Your task to perform on an android device: refresh tabs in the chrome app Image 0: 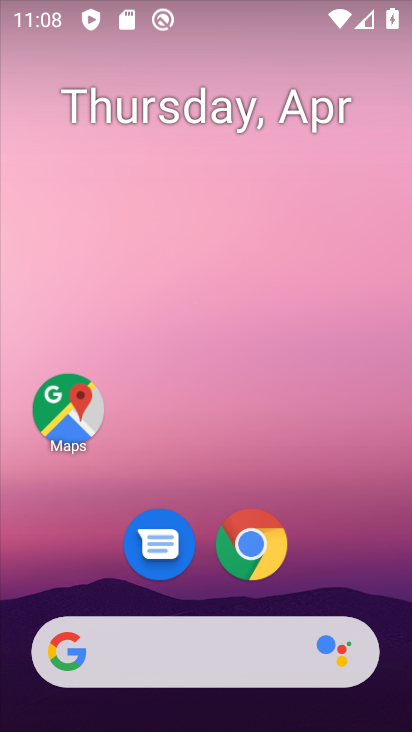
Step 0: click (256, 547)
Your task to perform on an android device: refresh tabs in the chrome app Image 1: 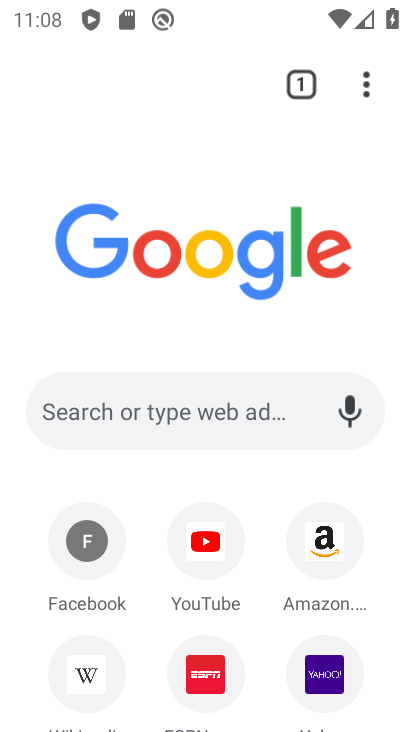
Step 1: click (405, 547)
Your task to perform on an android device: refresh tabs in the chrome app Image 2: 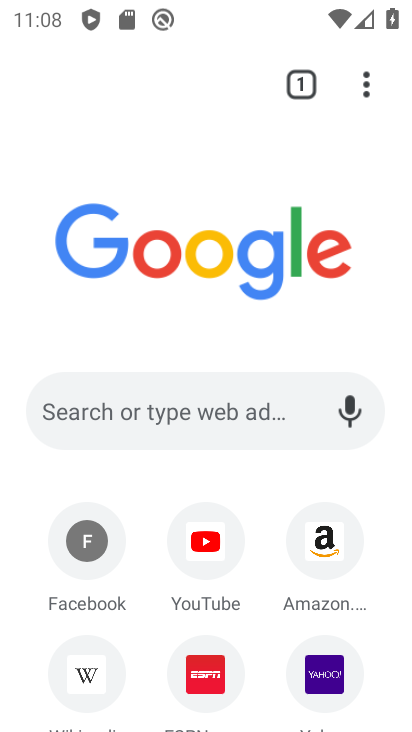
Step 2: drag from (405, 547) to (364, 77)
Your task to perform on an android device: refresh tabs in the chrome app Image 3: 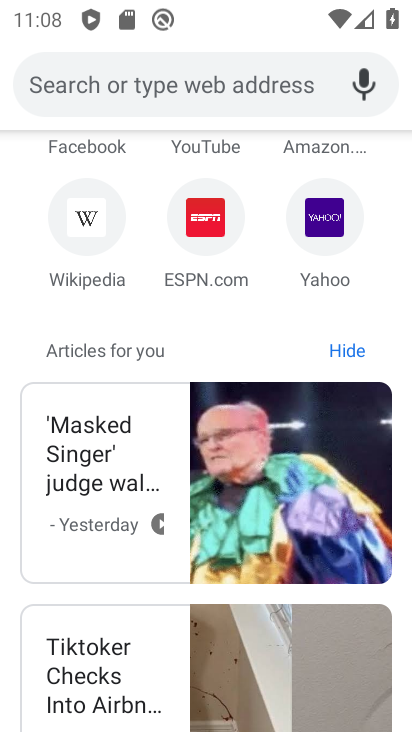
Step 3: drag from (333, 184) to (404, 546)
Your task to perform on an android device: refresh tabs in the chrome app Image 4: 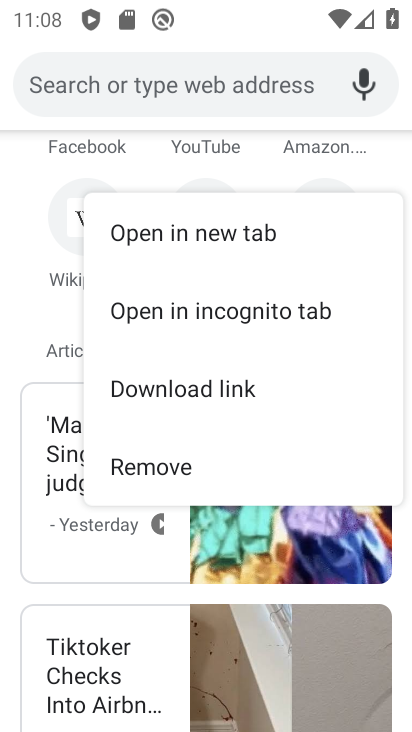
Step 4: drag from (61, 214) to (2, 471)
Your task to perform on an android device: refresh tabs in the chrome app Image 5: 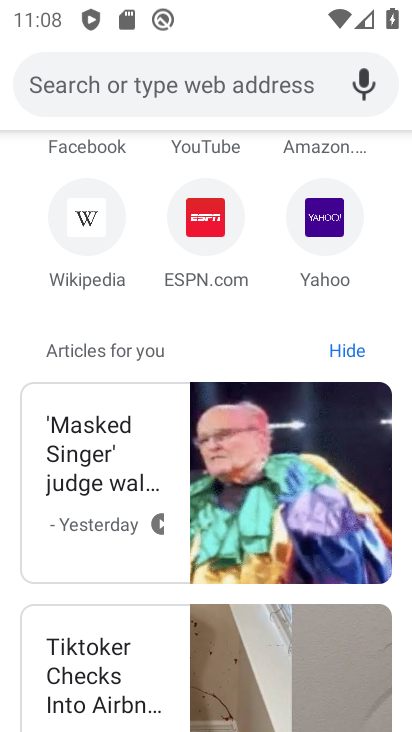
Step 5: drag from (19, 190) to (0, 482)
Your task to perform on an android device: refresh tabs in the chrome app Image 6: 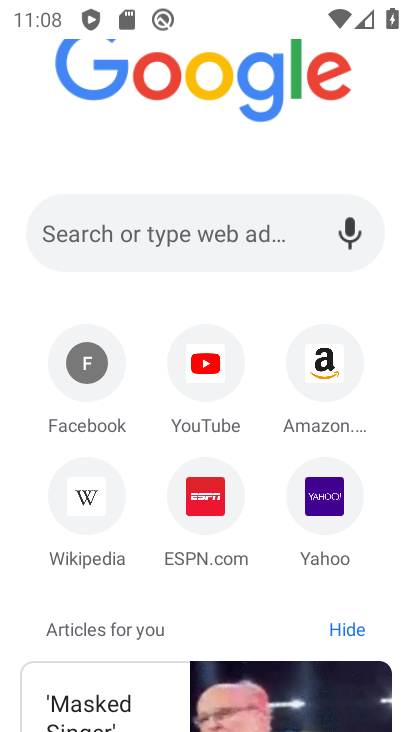
Step 6: drag from (54, 153) to (6, 487)
Your task to perform on an android device: refresh tabs in the chrome app Image 7: 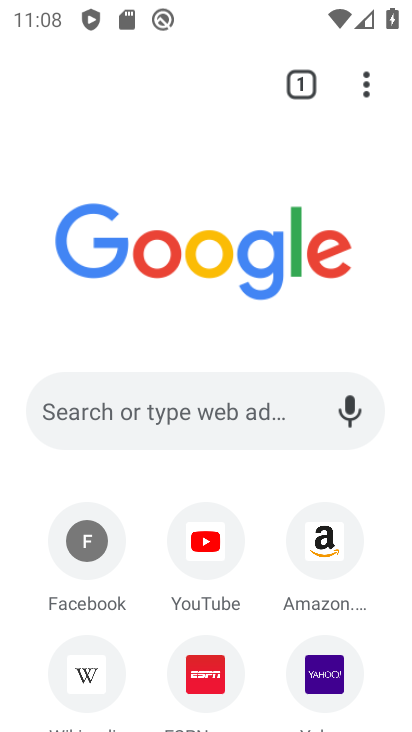
Step 7: click (374, 73)
Your task to perform on an android device: refresh tabs in the chrome app Image 8: 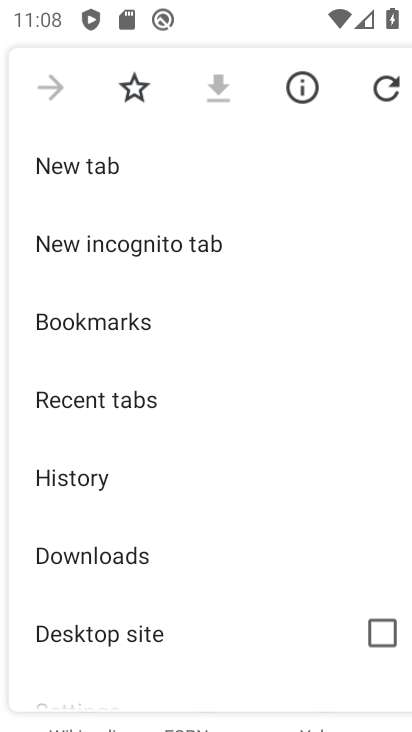
Step 8: click (340, 131)
Your task to perform on an android device: refresh tabs in the chrome app Image 9: 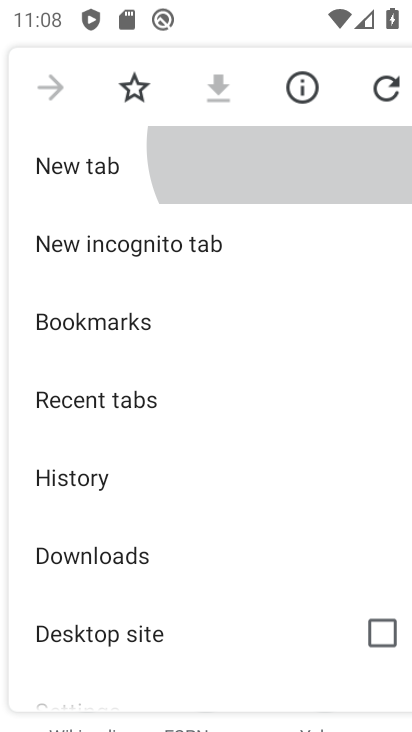
Step 9: click (388, 91)
Your task to perform on an android device: refresh tabs in the chrome app Image 10: 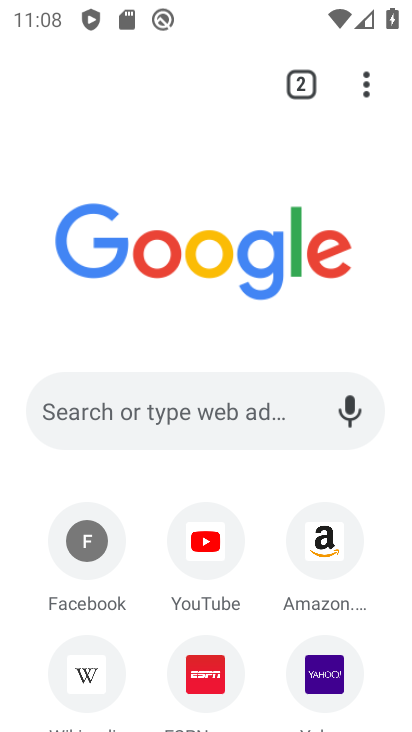
Step 10: task complete